Your task to perform on an android device: turn on javascript in the chrome app Image 0: 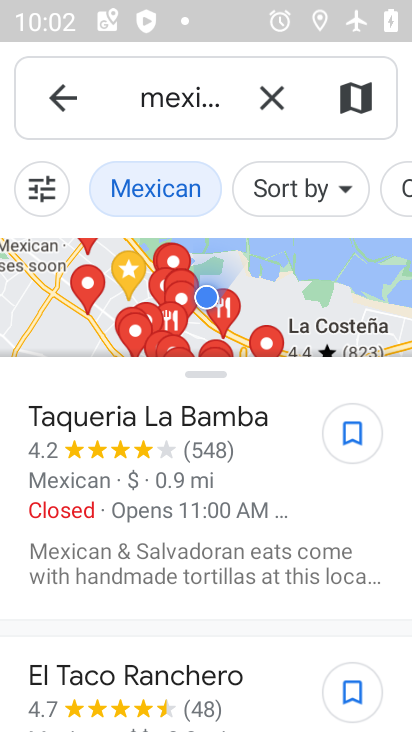
Step 0: press home button
Your task to perform on an android device: turn on javascript in the chrome app Image 1: 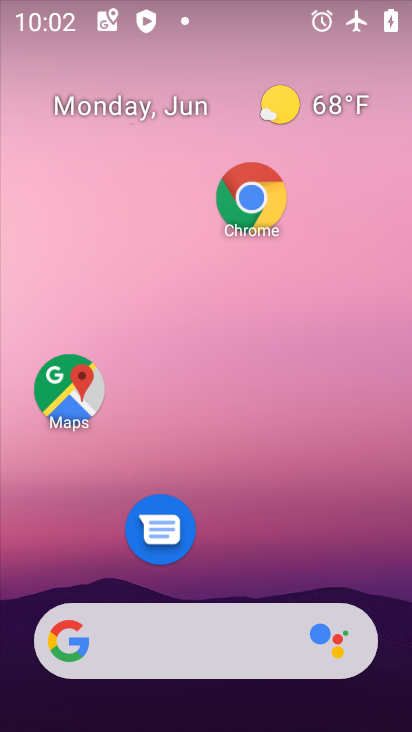
Step 1: click (254, 219)
Your task to perform on an android device: turn on javascript in the chrome app Image 2: 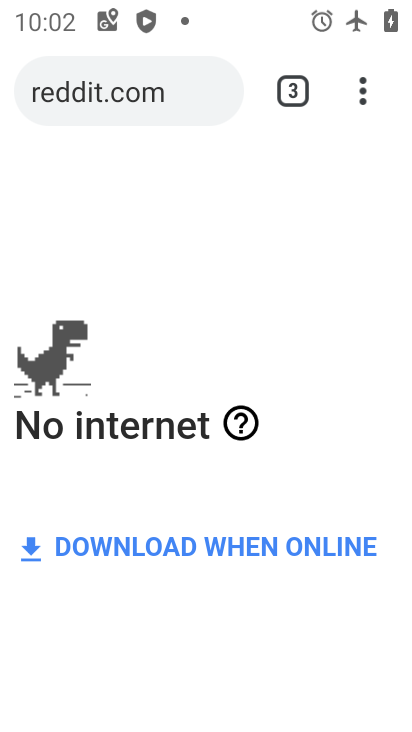
Step 2: click (352, 87)
Your task to perform on an android device: turn on javascript in the chrome app Image 3: 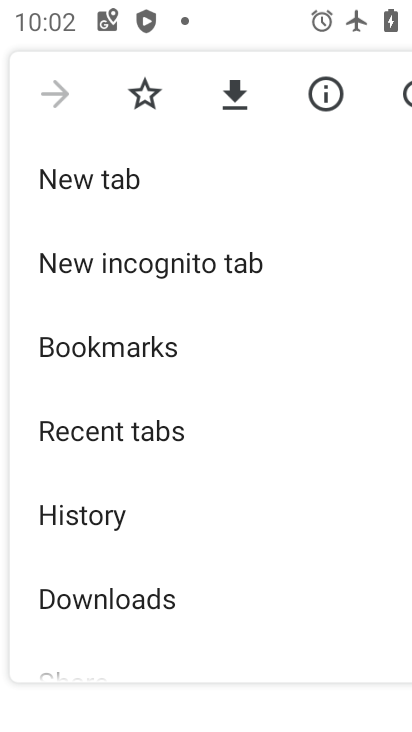
Step 3: drag from (184, 552) to (238, 264)
Your task to perform on an android device: turn on javascript in the chrome app Image 4: 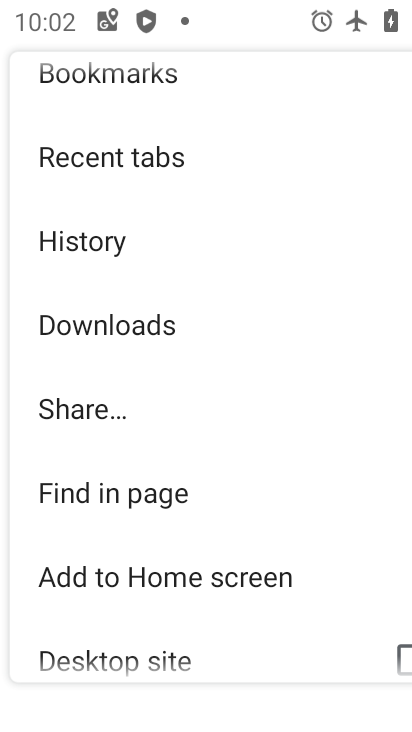
Step 4: drag from (193, 549) to (232, 337)
Your task to perform on an android device: turn on javascript in the chrome app Image 5: 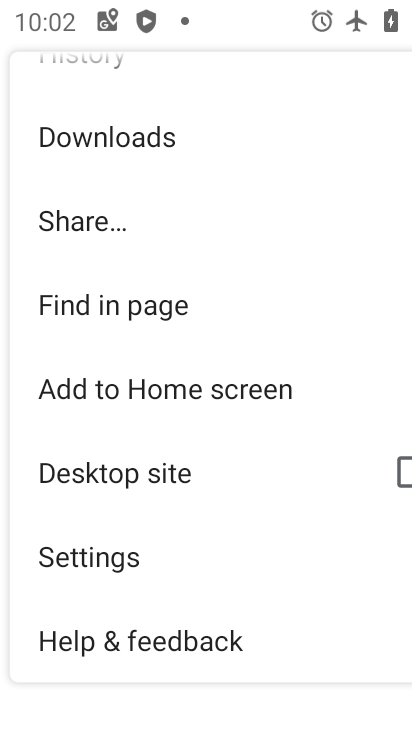
Step 5: click (147, 562)
Your task to perform on an android device: turn on javascript in the chrome app Image 6: 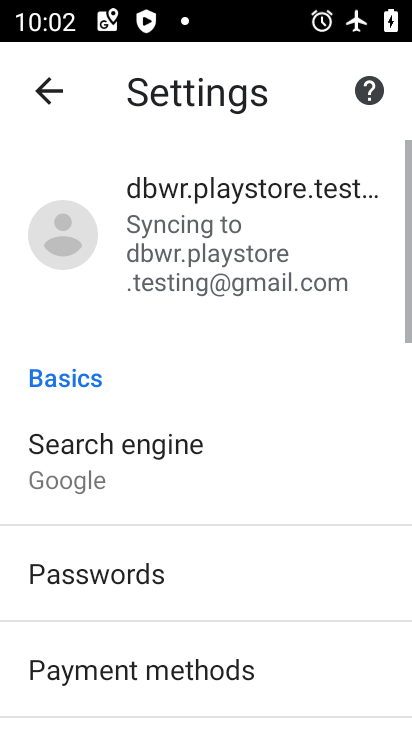
Step 6: drag from (187, 610) to (242, 338)
Your task to perform on an android device: turn on javascript in the chrome app Image 7: 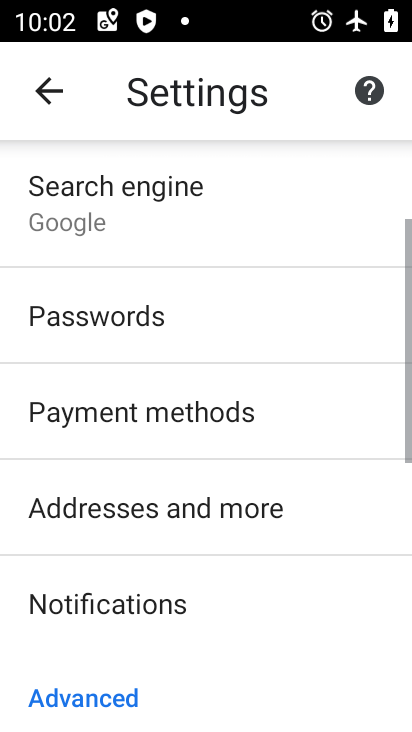
Step 7: drag from (210, 591) to (260, 290)
Your task to perform on an android device: turn on javascript in the chrome app Image 8: 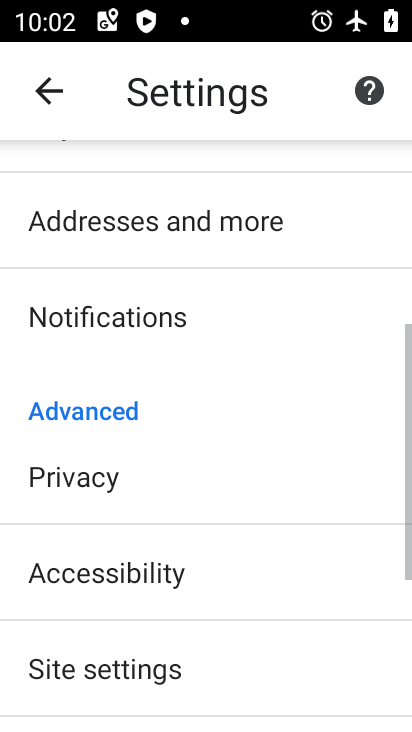
Step 8: drag from (215, 564) to (245, 344)
Your task to perform on an android device: turn on javascript in the chrome app Image 9: 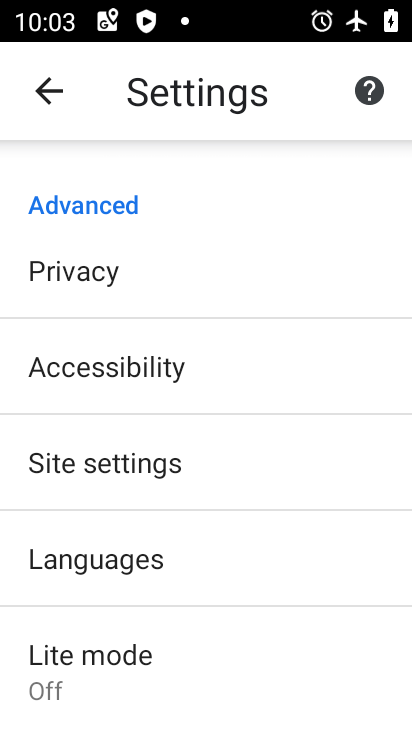
Step 9: click (145, 483)
Your task to perform on an android device: turn on javascript in the chrome app Image 10: 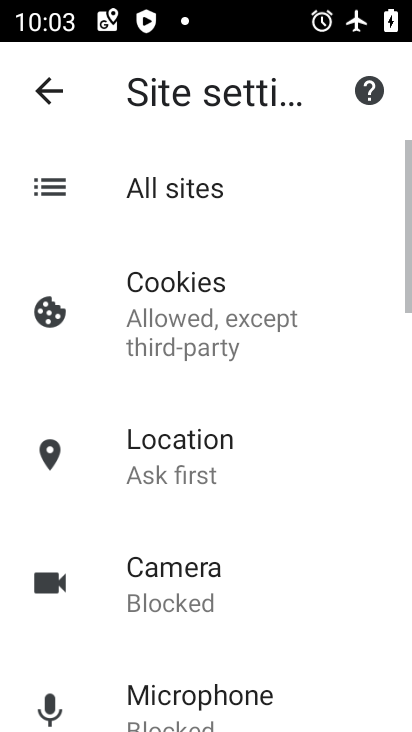
Step 10: drag from (227, 634) to (277, 344)
Your task to perform on an android device: turn on javascript in the chrome app Image 11: 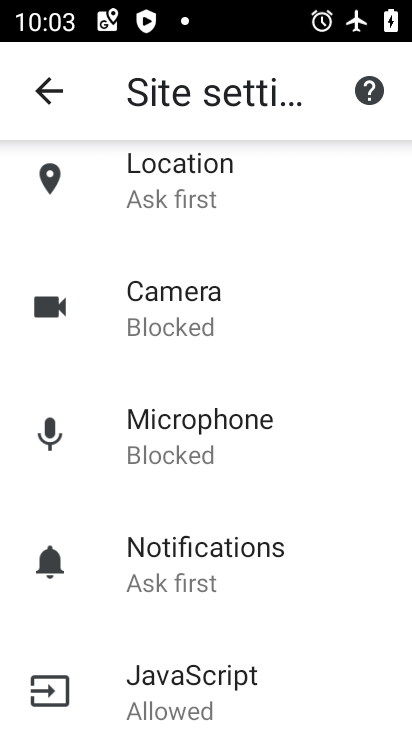
Step 11: click (186, 657)
Your task to perform on an android device: turn on javascript in the chrome app Image 12: 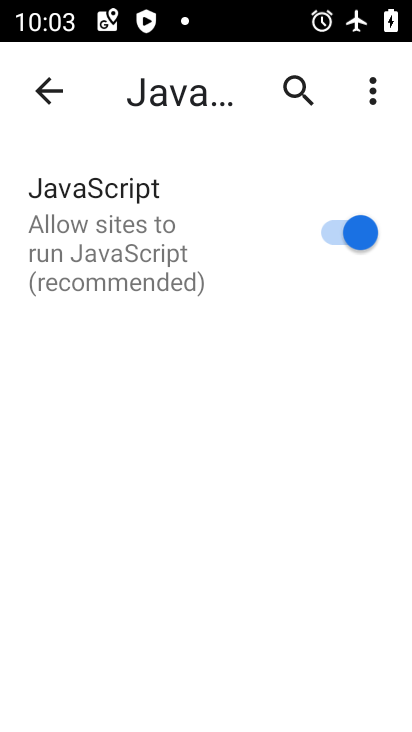
Step 12: task complete